Your task to perform on an android device: What's the weather going to be this weekend? Image 0: 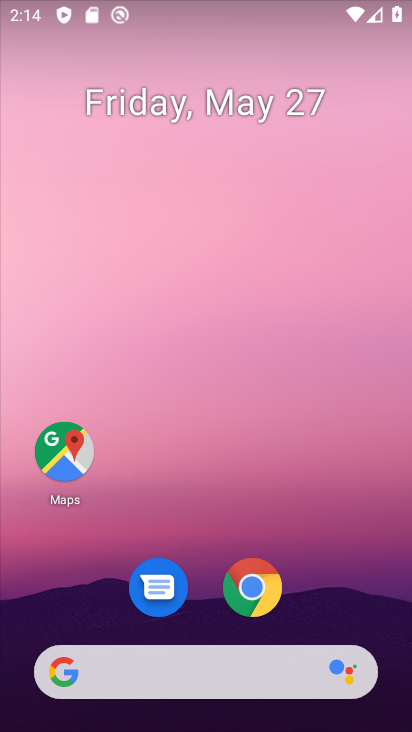
Step 0: click (69, 683)
Your task to perform on an android device: What's the weather going to be this weekend? Image 1: 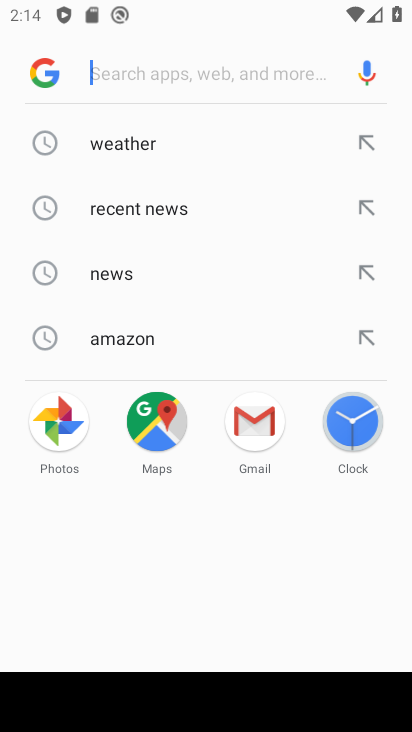
Step 1: drag from (79, 718) to (291, 722)
Your task to perform on an android device: What's the weather going to be this weekend? Image 2: 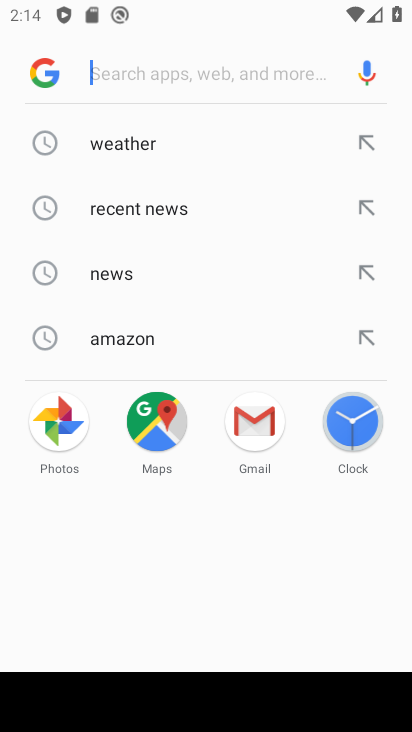
Step 2: click (299, 730)
Your task to perform on an android device: What's the weather going to be this weekend? Image 3: 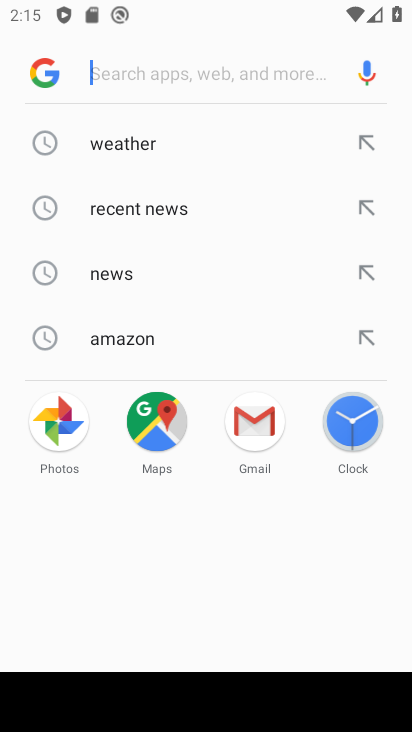
Step 3: click (362, 722)
Your task to perform on an android device: What's the weather going to be this weekend? Image 4: 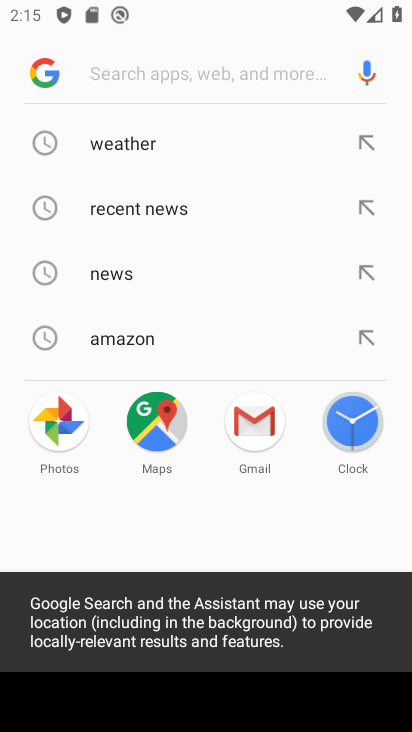
Step 4: type "weather this weekend"
Your task to perform on an android device: What's the weather going to be this weekend? Image 5: 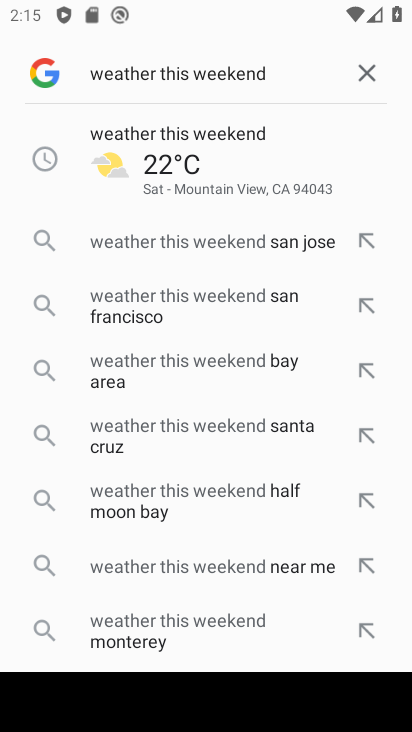
Step 5: click (173, 135)
Your task to perform on an android device: What's the weather going to be this weekend? Image 6: 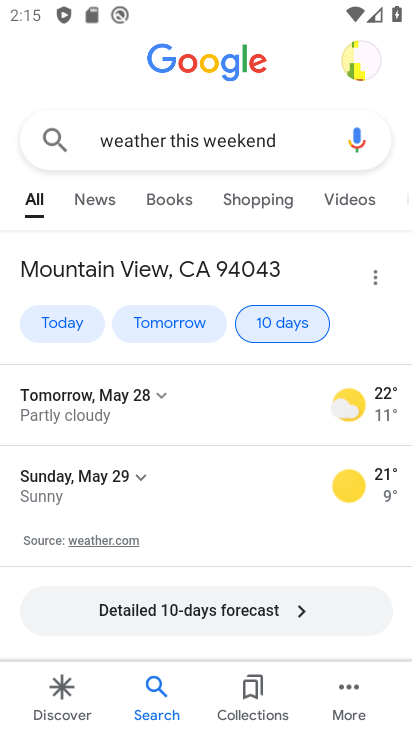
Step 6: task complete